Your task to perform on an android device: snooze an email in the gmail app Image 0: 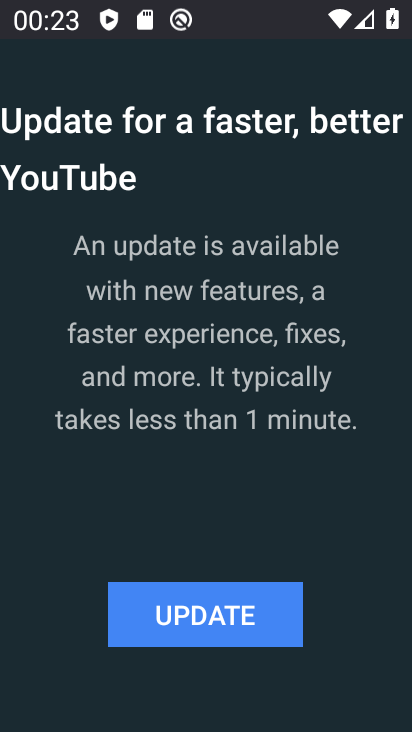
Step 0: press home button
Your task to perform on an android device: snooze an email in the gmail app Image 1: 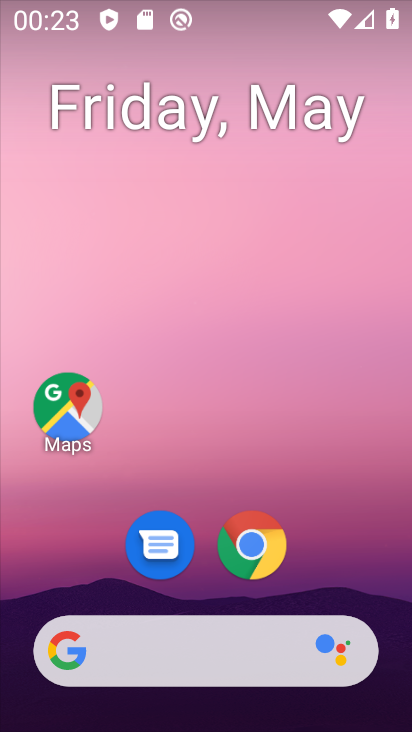
Step 1: drag from (322, 568) to (291, 46)
Your task to perform on an android device: snooze an email in the gmail app Image 2: 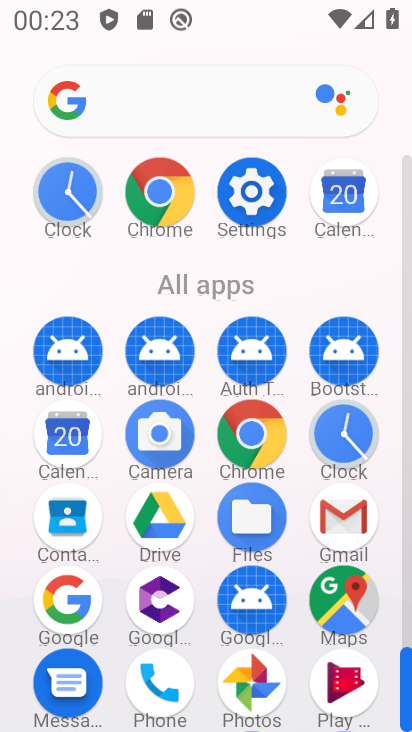
Step 2: click (335, 542)
Your task to perform on an android device: snooze an email in the gmail app Image 3: 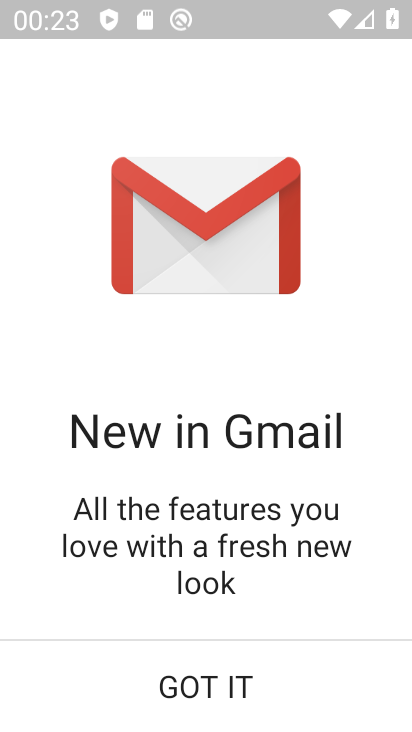
Step 3: click (124, 696)
Your task to perform on an android device: snooze an email in the gmail app Image 4: 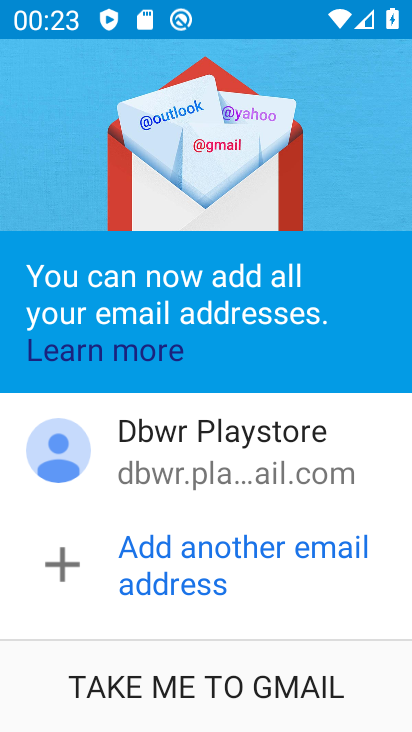
Step 4: click (134, 694)
Your task to perform on an android device: snooze an email in the gmail app Image 5: 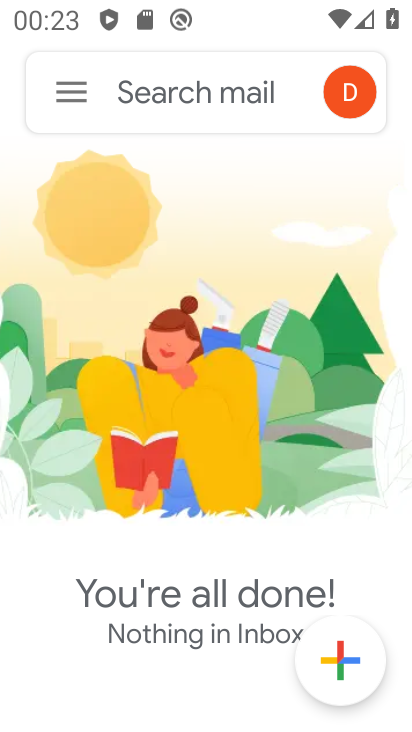
Step 5: click (63, 95)
Your task to perform on an android device: snooze an email in the gmail app Image 6: 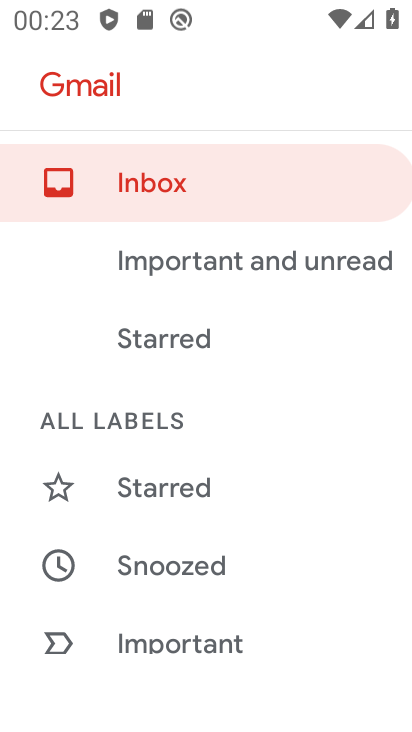
Step 6: drag from (125, 570) to (127, 210)
Your task to perform on an android device: snooze an email in the gmail app Image 7: 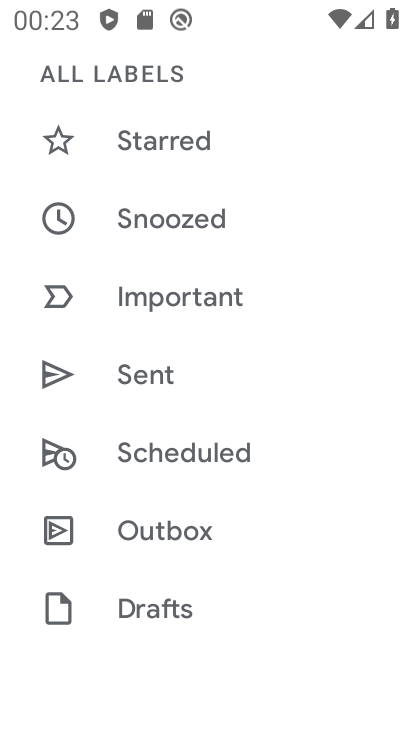
Step 7: drag from (175, 538) to (190, 196)
Your task to perform on an android device: snooze an email in the gmail app Image 8: 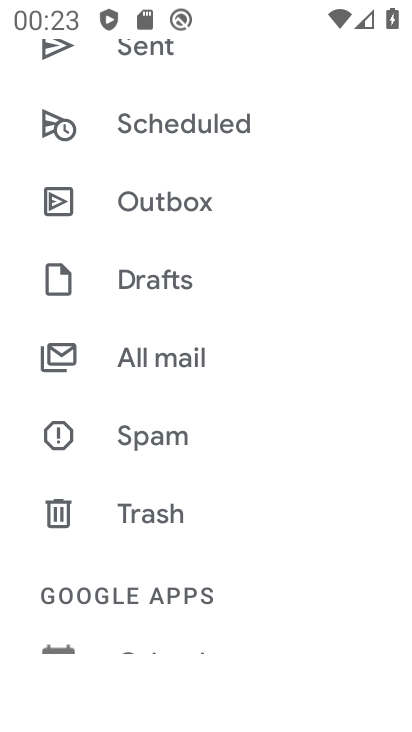
Step 8: drag from (192, 568) to (197, 456)
Your task to perform on an android device: snooze an email in the gmail app Image 9: 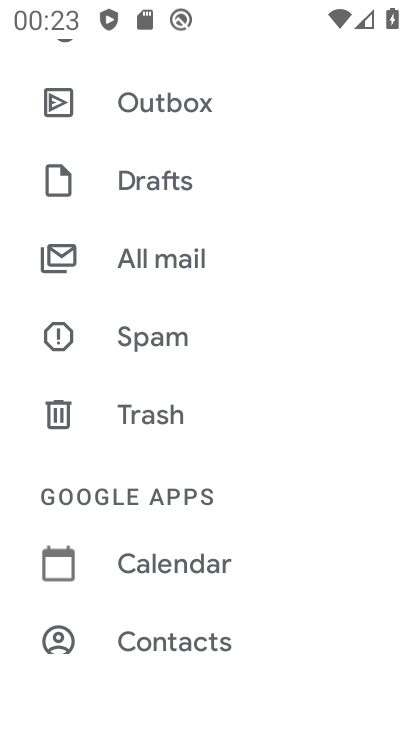
Step 9: click (146, 269)
Your task to perform on an android device: snooze an email in the gmail app Image 10: 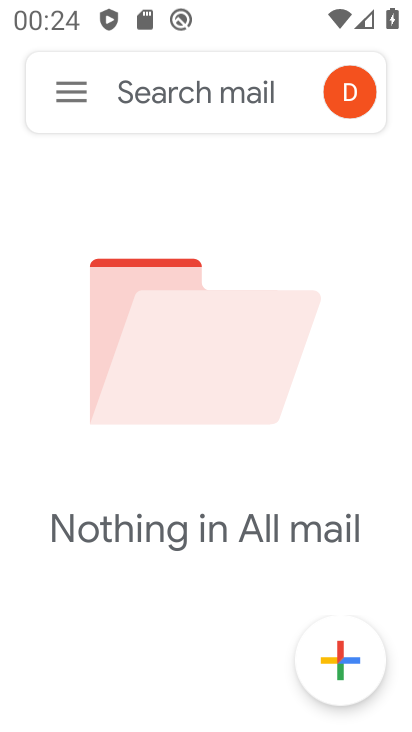
Step 10: task complete